Your task to perform on an android device: What's the weather like in San Francisco? Image 0: 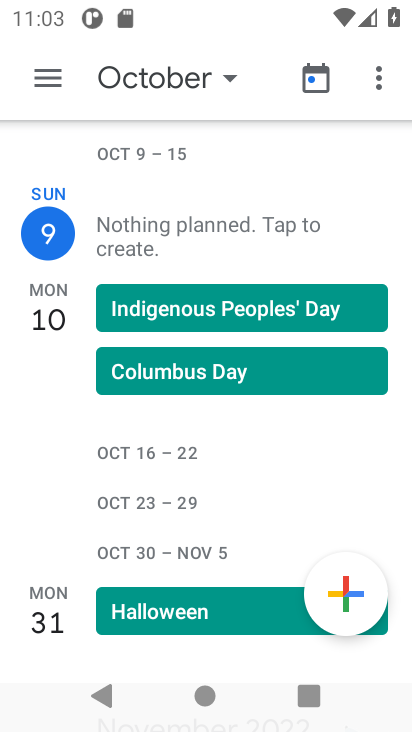
Step 0: press home button
Your task to perform on an android device: What's the weather like in San Francisco? Image 1: 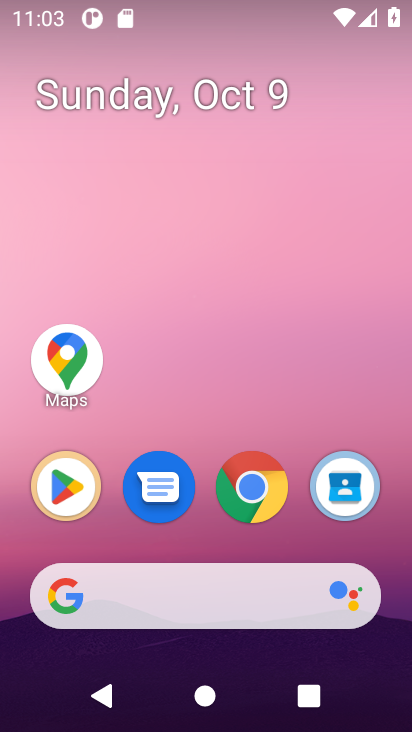
Step 1: click (261, 499)
Your task to perform on an android device: What's the weather like in San Francisco? Image 2: 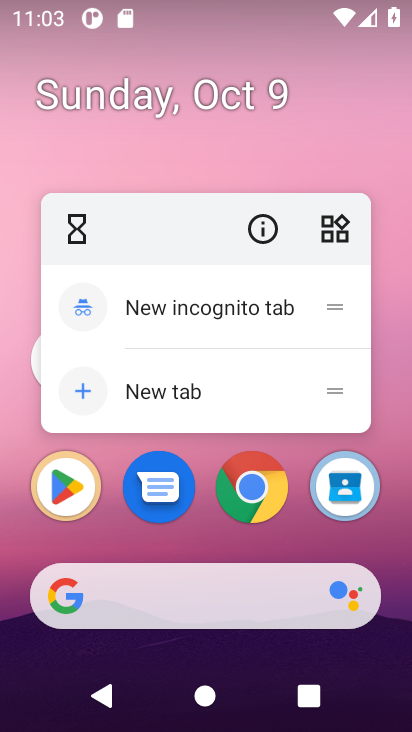
Step 2: click (270, 500)
Your task to perform on an android device: What's the weather like in San Francisco? Image 3: 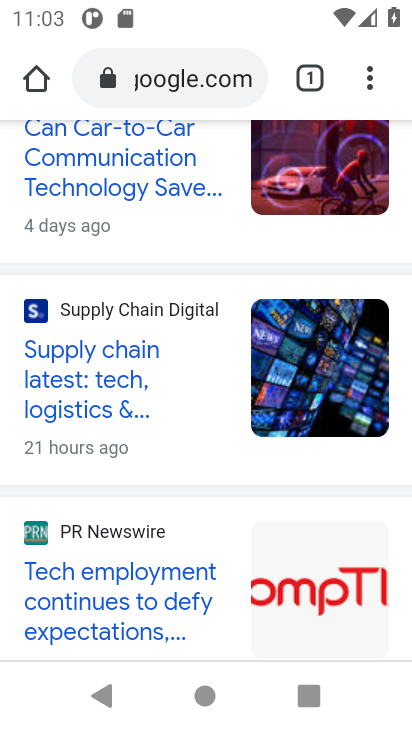
Step 3: click (210, 79)
Your task to perform on an android device: What's the weather like in San Francisco? Image 4: 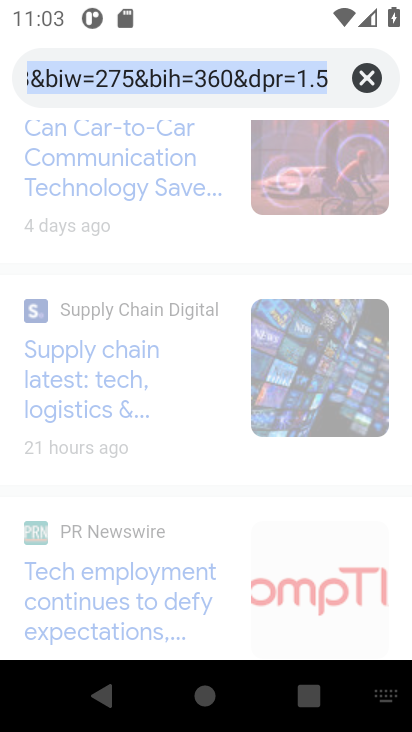
Step 4: type "weather like in San Francisco"
Your task to perform on an android device: What's the weather like in San Francisco? Image 5: 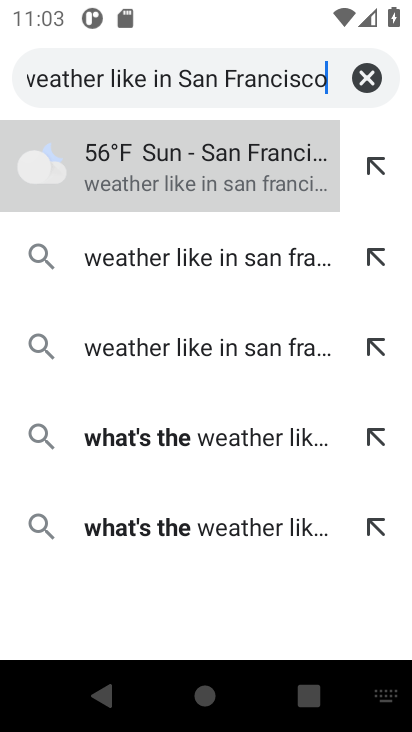
Step 5: type ""
Your task to perform on an android device: What's the weather like in San Francisco? Image 6: 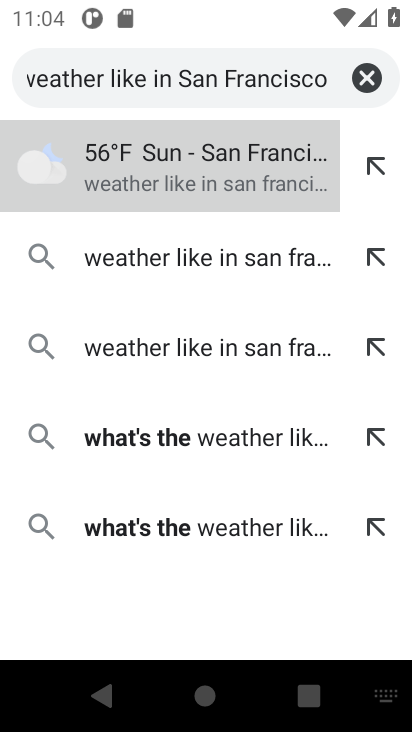
Step 6: press enter
Your task to perform on an android device: What's the weather like in San Francisco? Image 7: 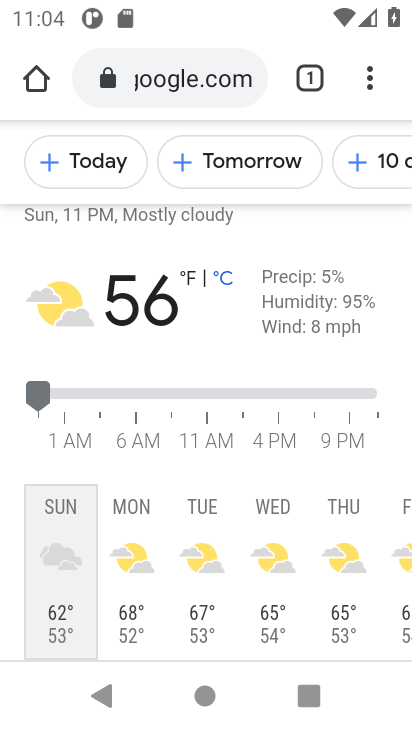
Step 7: drag from (251, 486) to (247, 235)
Your task to perform on an android device: What's the weather like in San Francisco? Image 8: 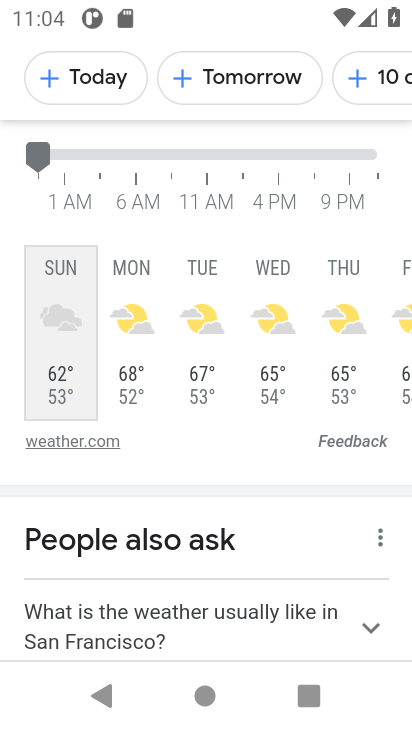
Step 8: drag from (304, 562) to (300, 666)
Your task to perform on an android device: What's the weather like in San Francisco? Image 9: 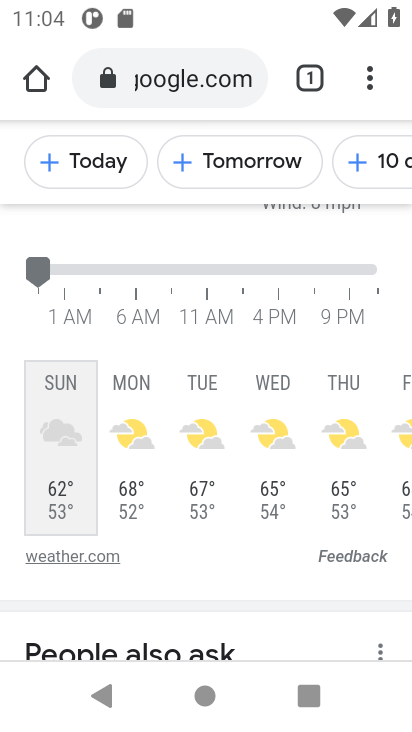
Step 9: drag from (241, 266) to (272, 520)
Your task to perform on an android device: What's the weather like in San Francisco? Image 10: 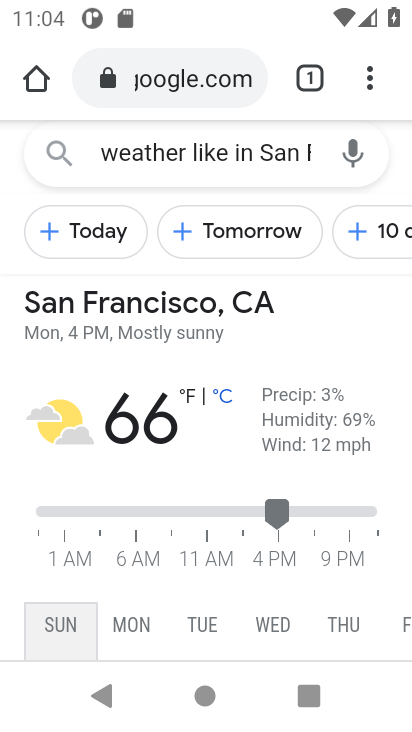
Step 10: click (45, 515)
Your task to perform on an android device: What's the weather like in San Francisco? Image 11: 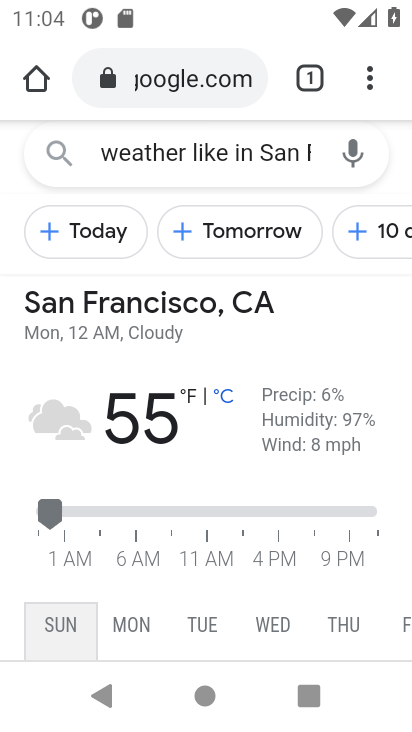
Step 11: click (226, 392)
Your task to perform on an android device: What's the weather like in San Francisco? Image 12: 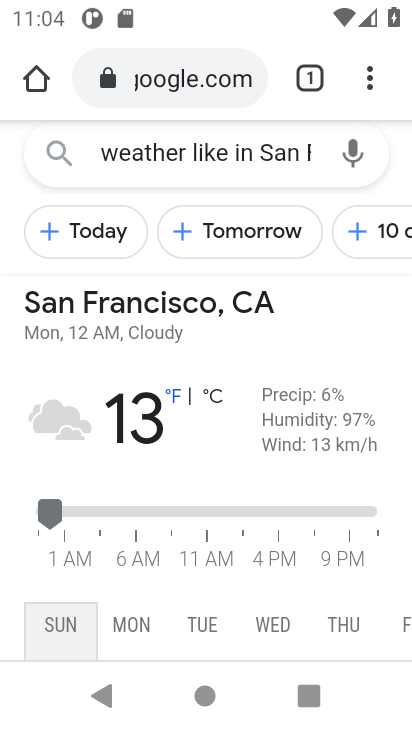
Step 12: task complete